Your task to perform on an android device: open chrome and create a bookmark for the current page Image 0: 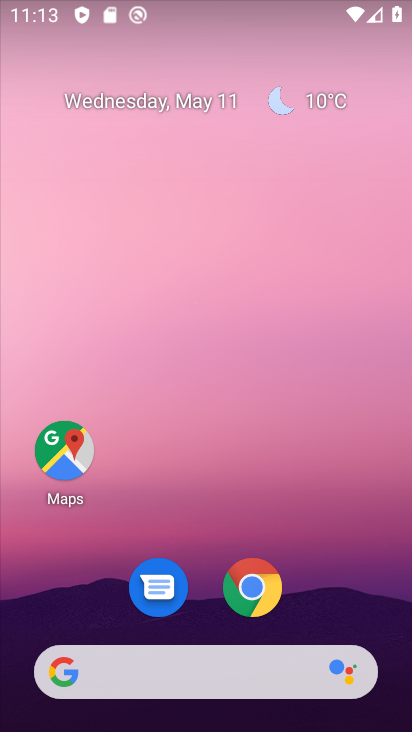
Step 0: click (254, 604)
Your task to perform on an android device: open chrome and create a bookmark for the current page Image 1: 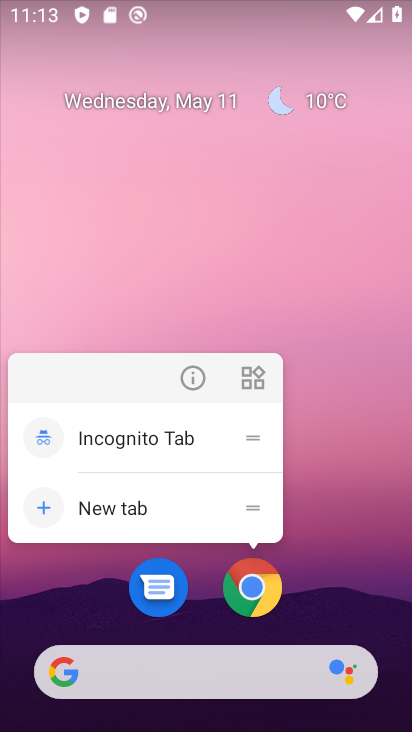
Step 1: click (257, 607)
Your task to perform on an android device: open chrome and create a bookmark for the current page Image 2: 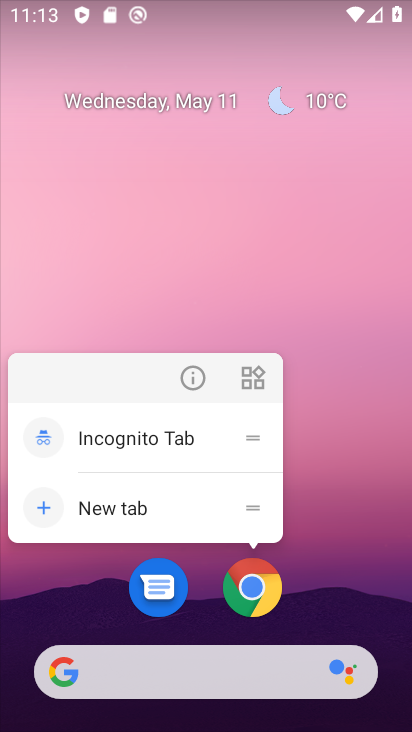
Step 2: click (259, 596)
Your task to perform on an android device: open chrome and create a bookmark for the current page Image 3: 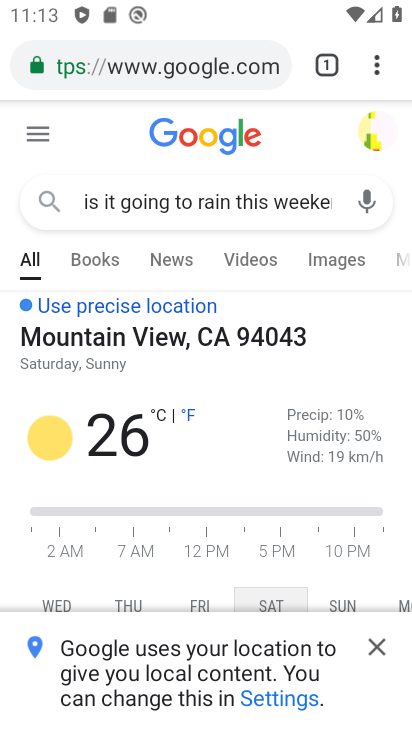
Step 3: task complete